Your task to perform on an android device: Go to Wikipedia Image 0: 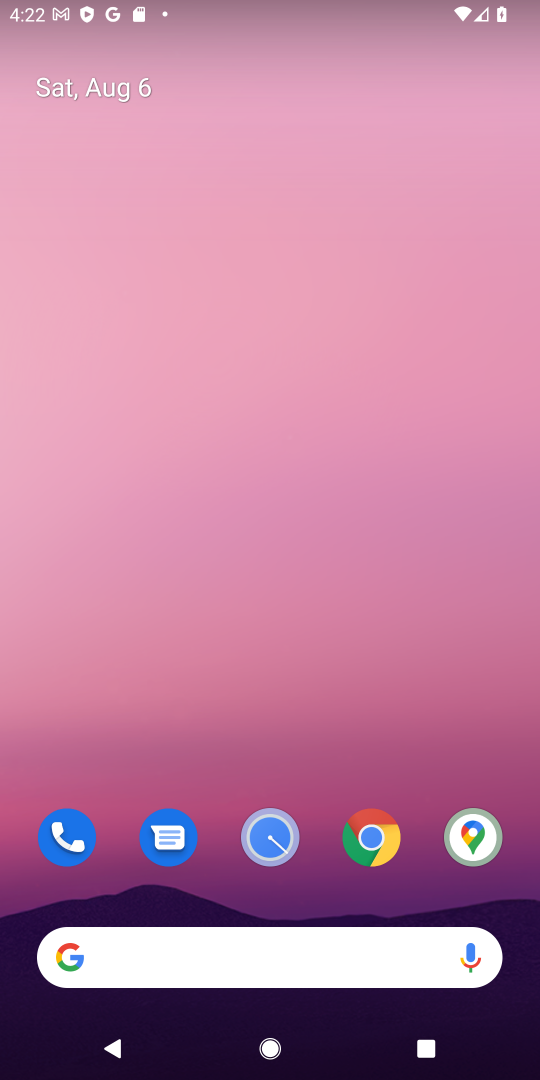
Step 0: click (371, 836)
Your task to perform on an android device: Go to Wikipedia Image 1: 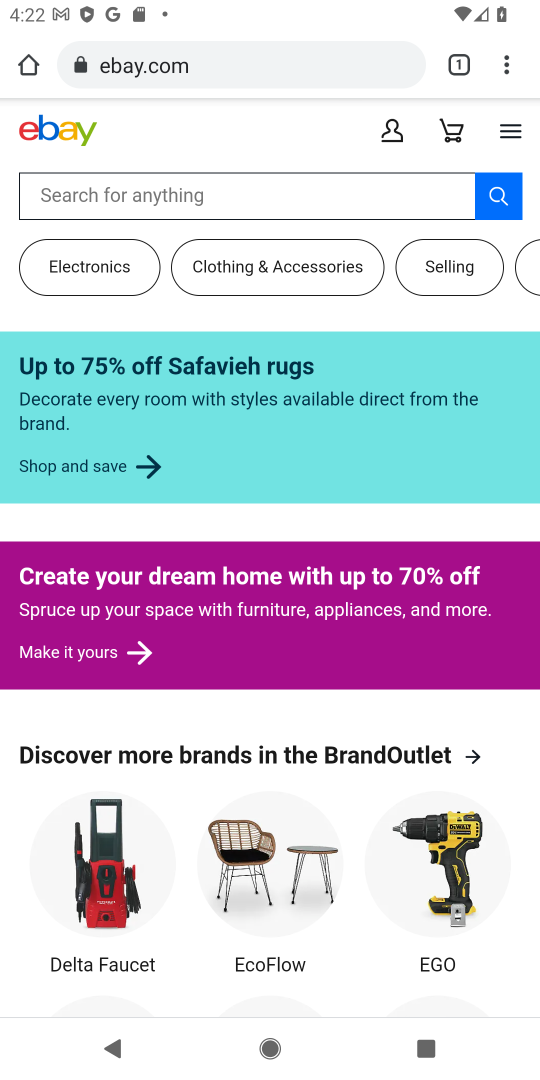
Step 1: click (238, 66)
Your task to perform on an android device: Go to Wikipedia Image 2: 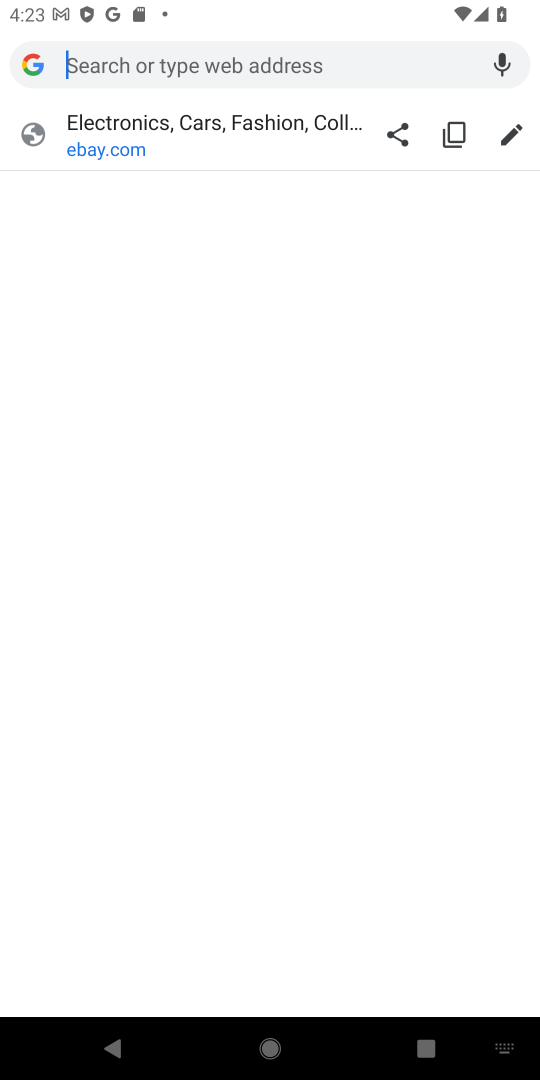
Step 2: type "wikipedia"
Your task to perform on an android device: Go to Wikipedia Image 3: 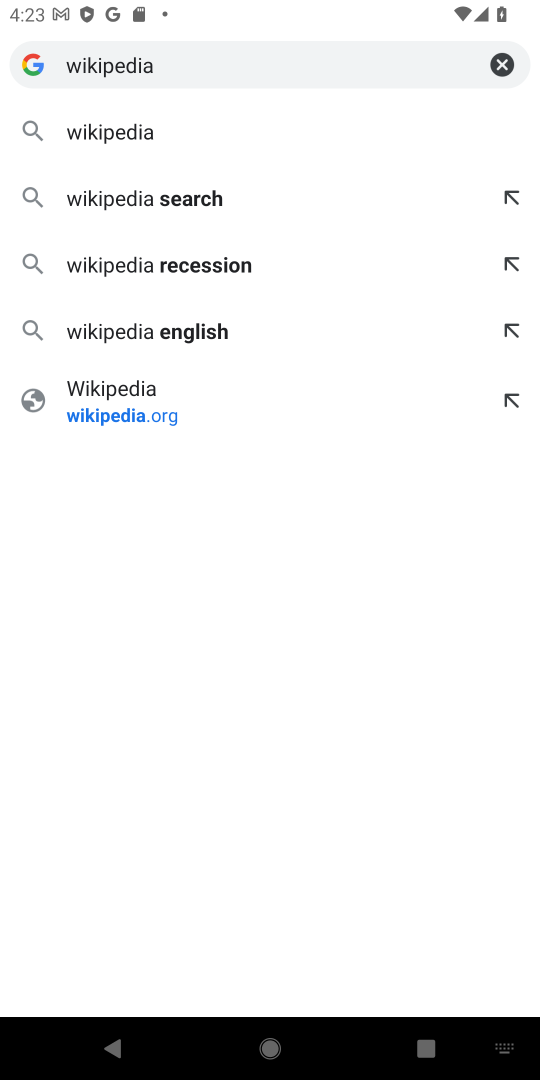
Step 3: click (116, 136)
Your task to perform on an android device: Go to Wikipedia Image 4: 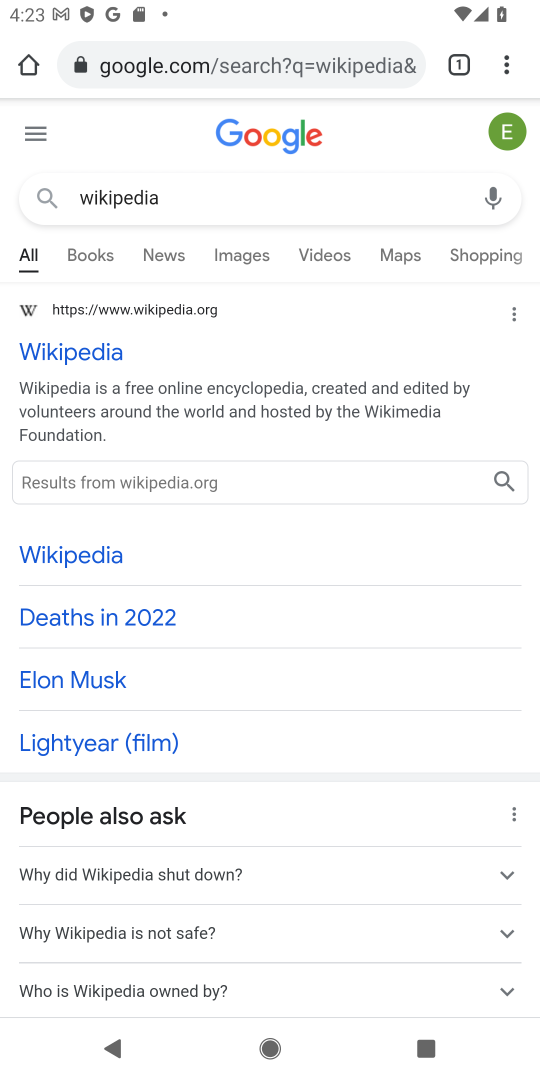
Step 4: click (74, 359)
Your task to perform on an android device: Go to Wikipedia Image 5: 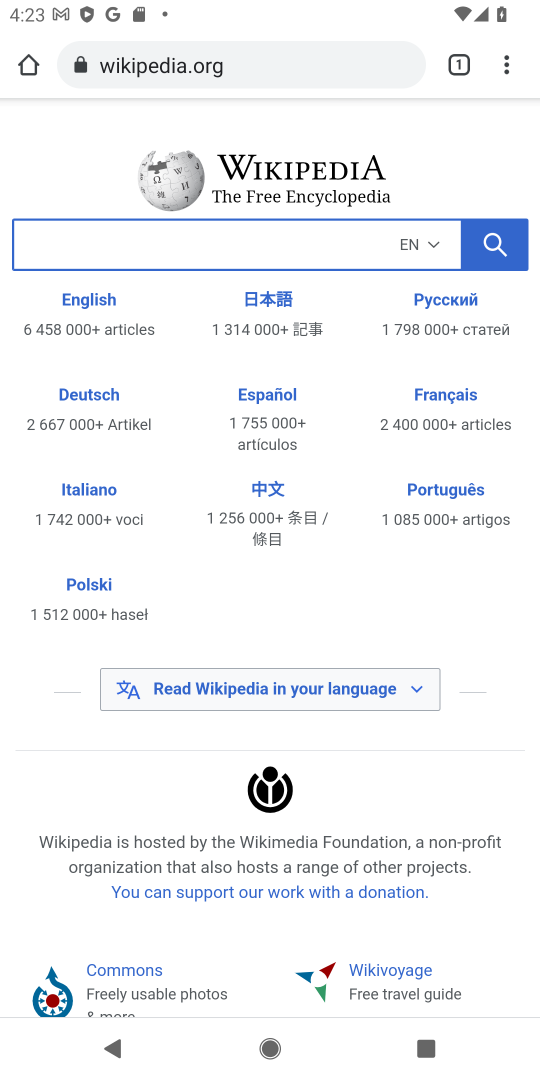
Step 5: task complete